Your task to perform on an android device: turn on javascript in the chrome app Image 0: 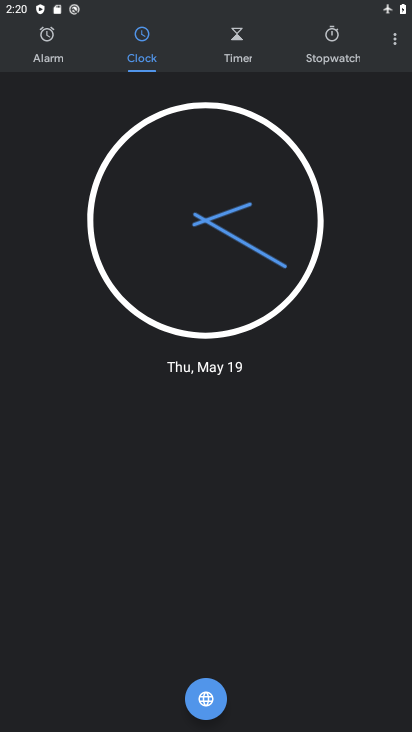
Step 0: press home button
Your task to perform on an android device: turn on javascript in the chrome app Image 1: 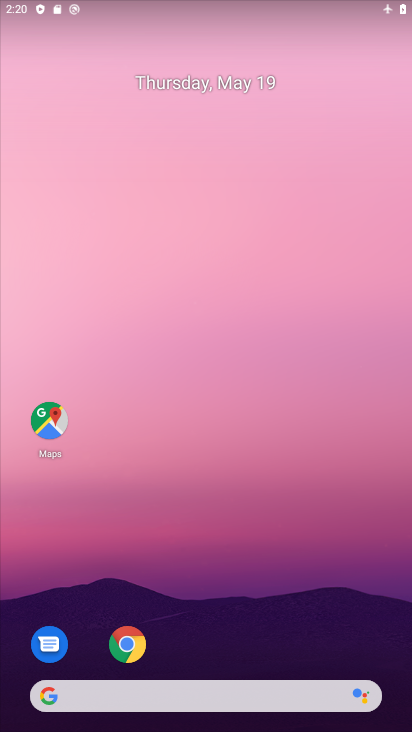
Step 1: click (122, 639)
Your task to perform on an android device: turn on javascript in the chrome app Image 2: 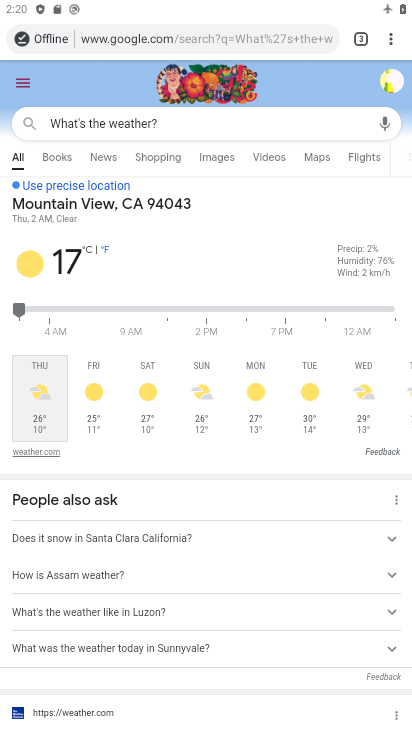
Step 2: click (389, 42)
Your task to perform on an android device: turn on javascript in the chrome app Image 3: 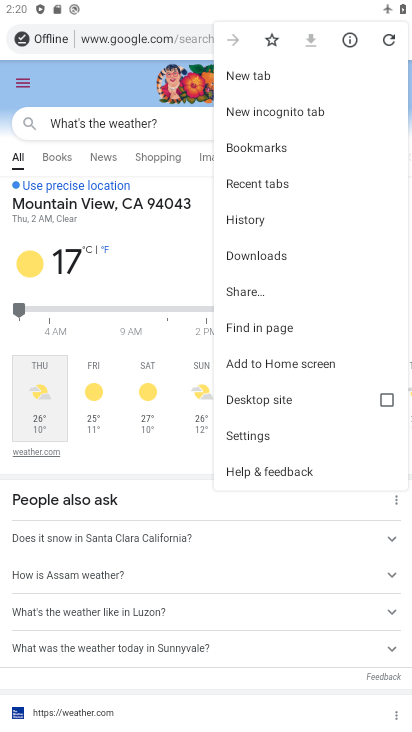
Step 3: click (263, 433)
Your task to perform on an android device: turn on javascript in the chrome app Image 4: 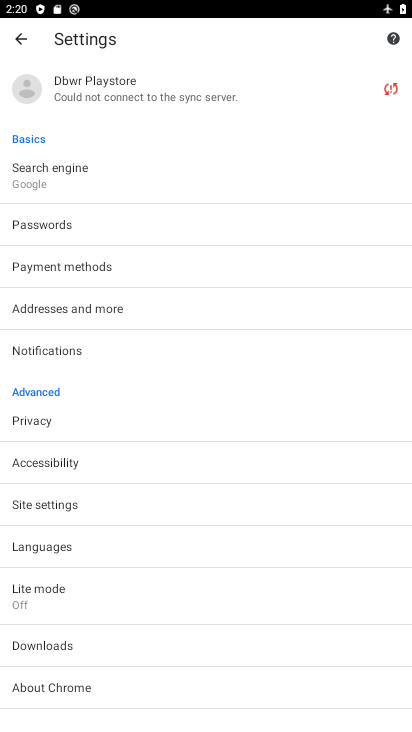
Step 4: click (76, 503)
Your task to perform on an android device: turn on javascript in the chrome app Image 5: 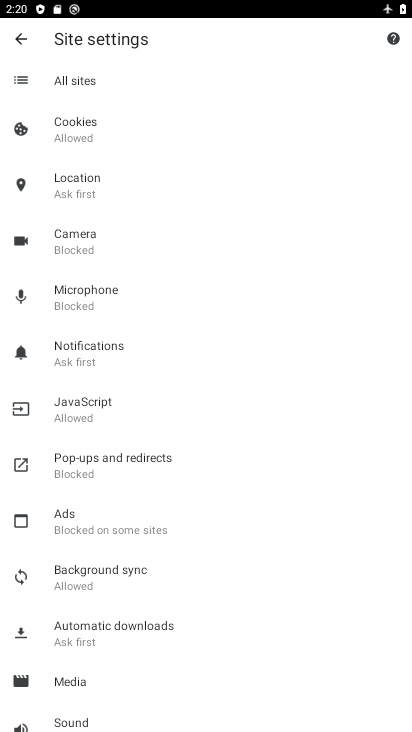
Step 5: click (121, 417)
Your task to perform on an android device: turn on javascript in the chrome app Image 6: 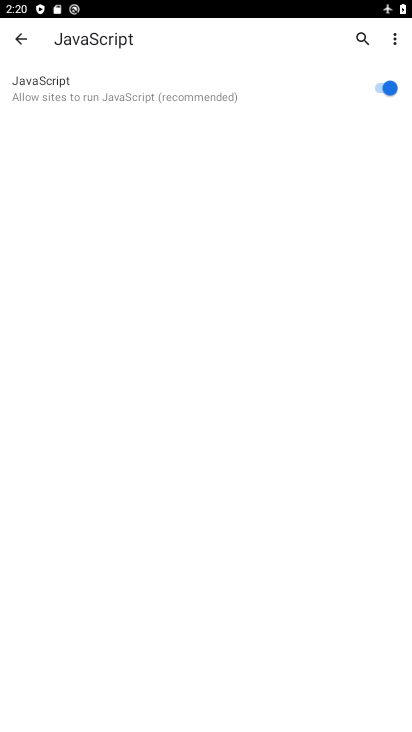
Step 6: task complete